Your task to perform on an android device: turn on location history Image 0: 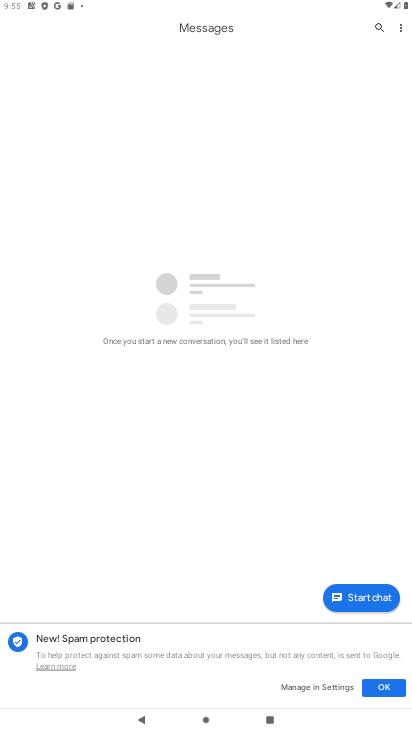
Step 0: press home button
Your task to perform on an android device: turn on location history Image 1: 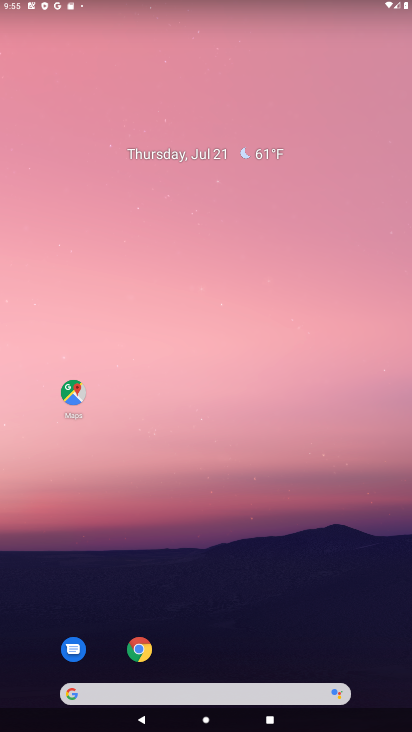
Step 1: drag from (181, 697) to (230, 203)
Your task to perform on an android device: turn on location history Image 2: 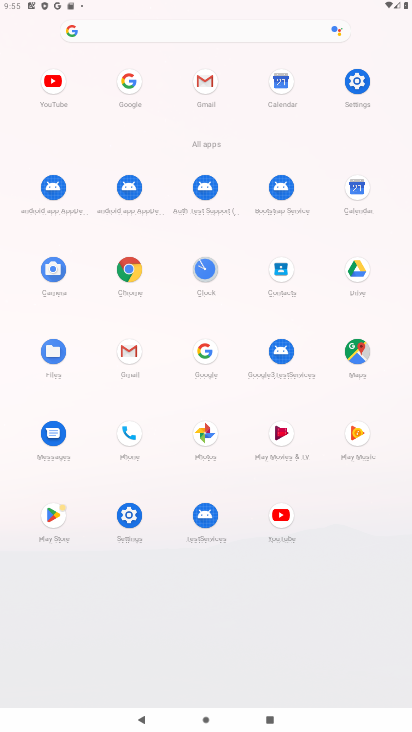
Step 2: click (356, 82)
Your task to perform on an android device: turn on location history Image 3: 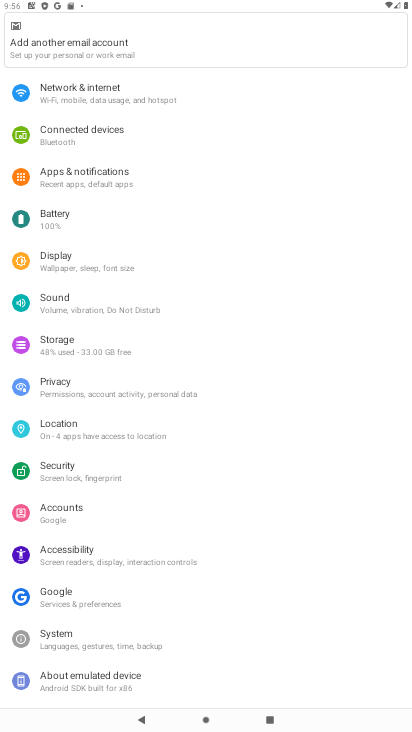
Step 3: click (73, 435)
Your task to perform on an android device: turn on location history Image 4: 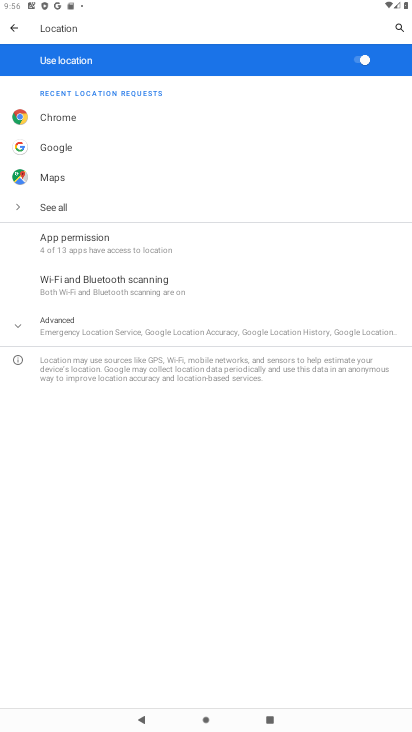
Step 4: click (93, 325)
Your task to perform on an android device: turn on location history Image 5: 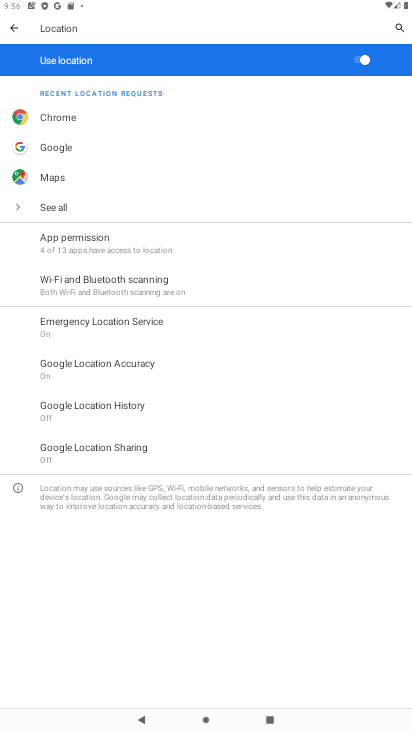
Step 5: click (121, 404)
Your task to perform on an android device: turn on location history Image 6: 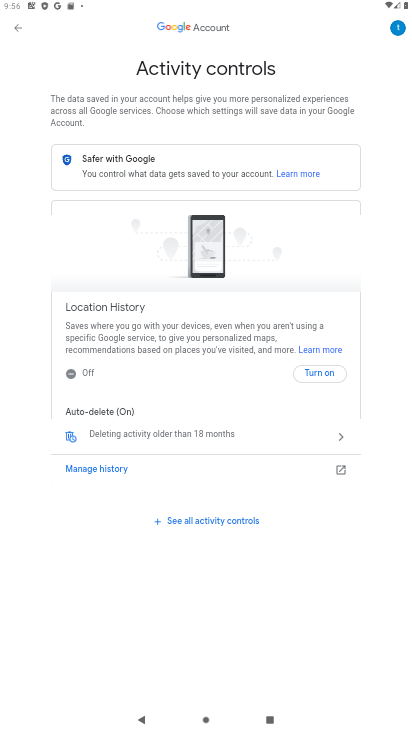
Step 6: click (316, 367)
Your task to perform on an android device: turn on location history Image 7: 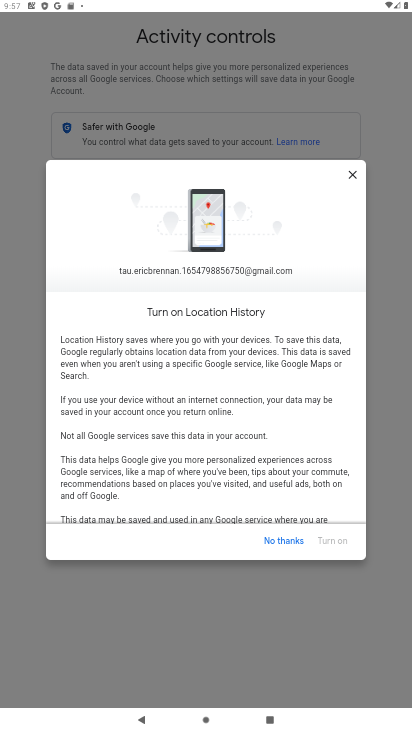
Step 7: drag from (266, 444) to (279, 282)
Your task to perform on an android device: turn on location history Image 8: 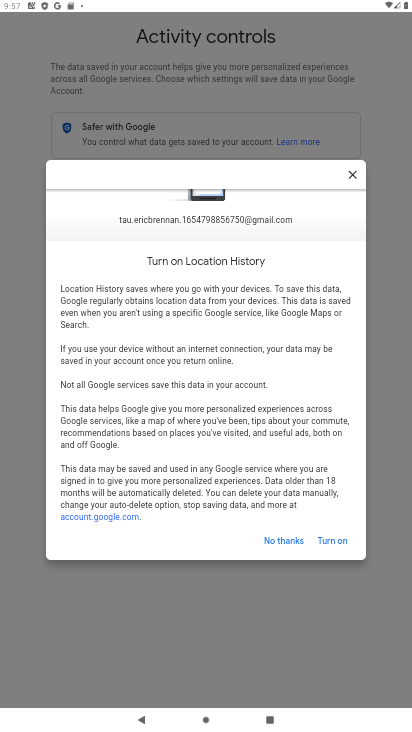
Step 8: click (330, 540)
Your task to perform on an android device: turn on location history Image 9: 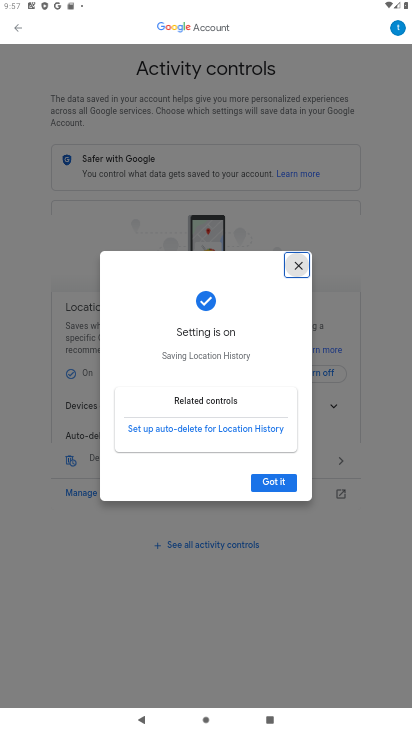
Step 9: click (279, 485)
Your task to perform on an android device: turn on location history Image 10: 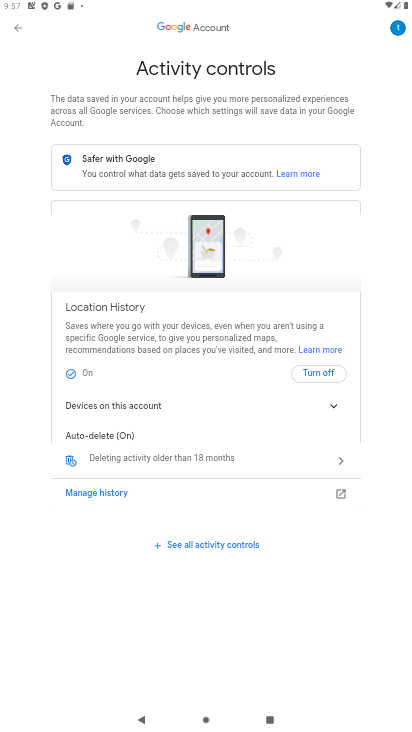
Step 10: task complete